Your task to perform on an android device: turn off priority inbox in the gmail app Image 0: 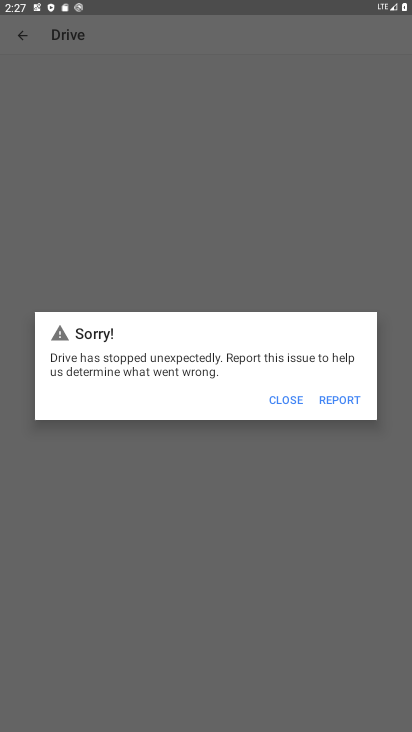
Step 0: press home button
Your task to perform on an android device: turn off priority inbox in the gmail app Image 1: 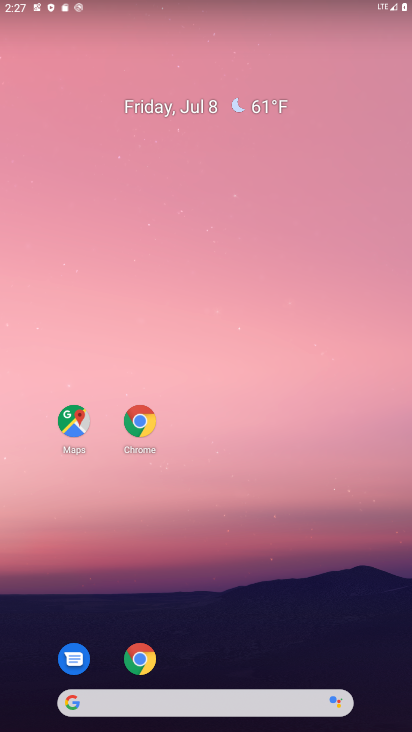
Step 1: drag from (221, 668) to (209, 3)
Your task to perform on an android device: turn off priority inbox in the gmail app Image 2: 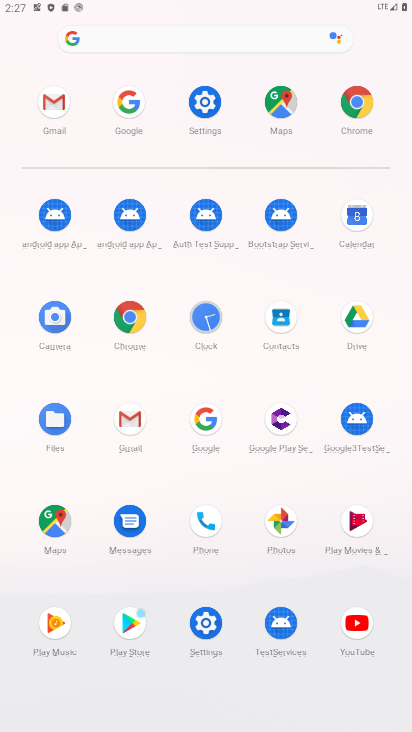
Step 2: click (132, 425)
Your task to perform on an android device: turn off priority inbox in the gmail app Image 3: 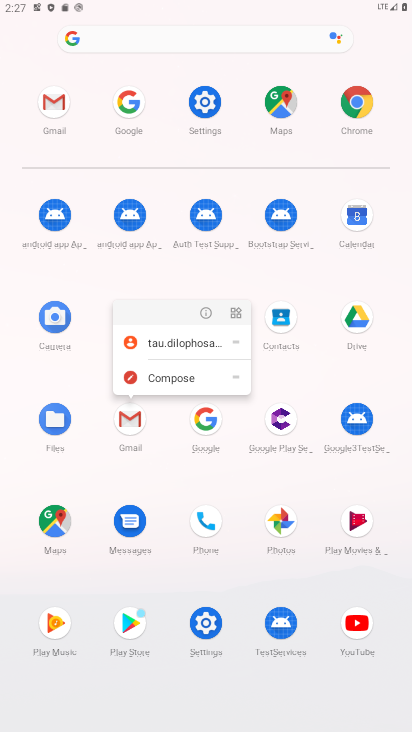
Step 3: click (132, 425)
Your task to perform on an android device: turn off priority inbox in the gmail app Image 4: 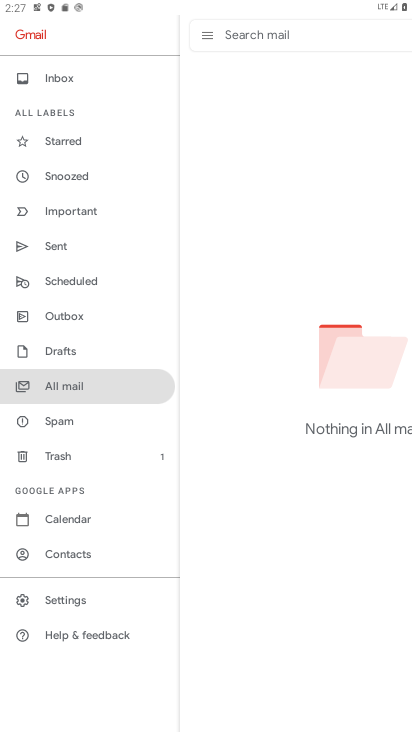
Step 4: click (80, 589)
Your task to perform on an android device: turn off priority inbox in the gmail app Image 5: 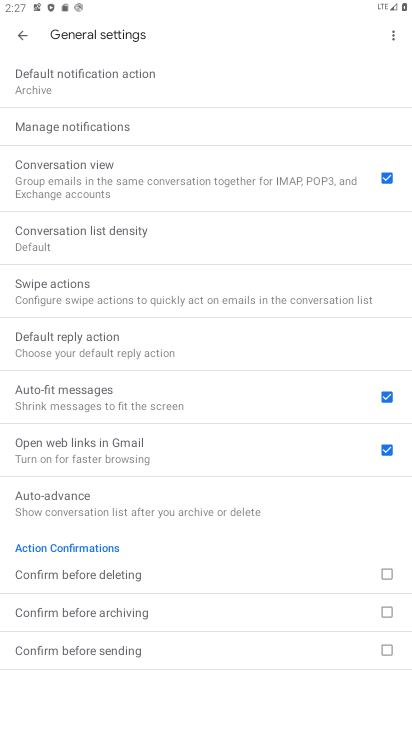
Step 5: click (17, 35)
Your task to perform on an android device: turn off priority inbox in the gmail app Image 6: 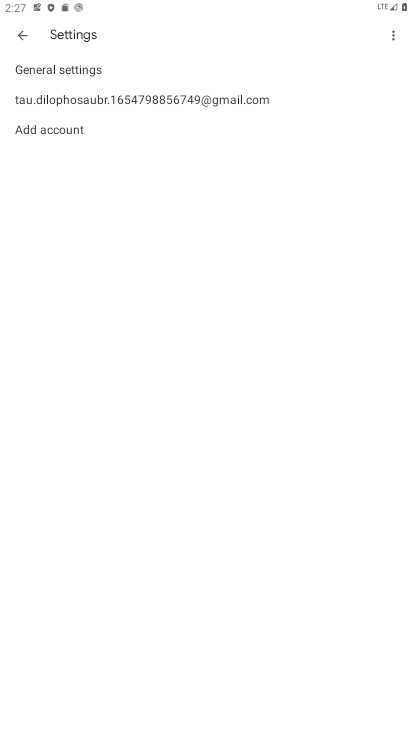
Step 6: click (35, 89)
Your task to perform on an android device: turn off priority inbox in the gmail app Image 7: 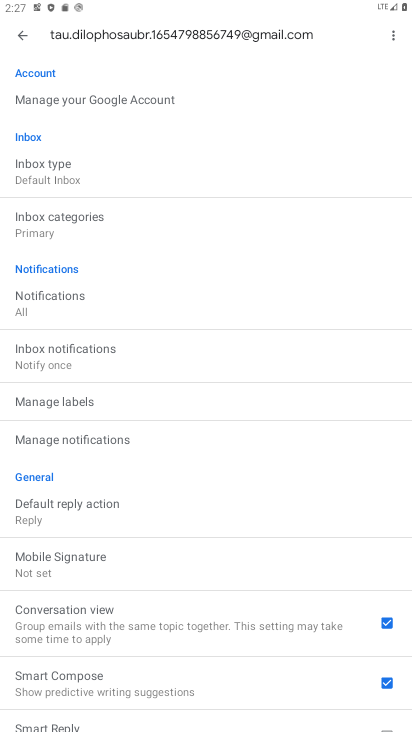
Step 7: click (42, 221)
Your task to perform on an android device: turn off priority inbox in the gmail app Image 8: 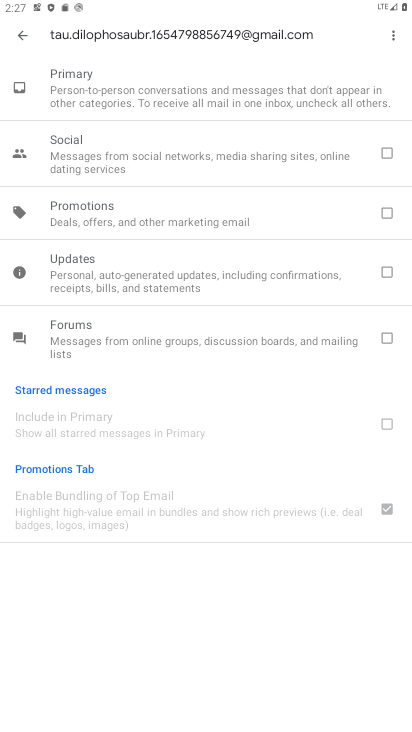
Step 8: click (26, 29)
Your task to perform on an android device: turn off priority inbox in the gmail app Image 9: 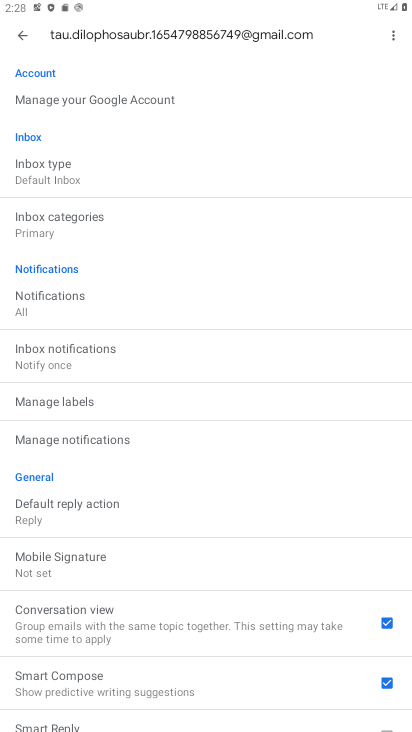
Step 9: click (46, 191)
Your task to perform on an android device: turn off priority inbox in the gmail app Image 10: 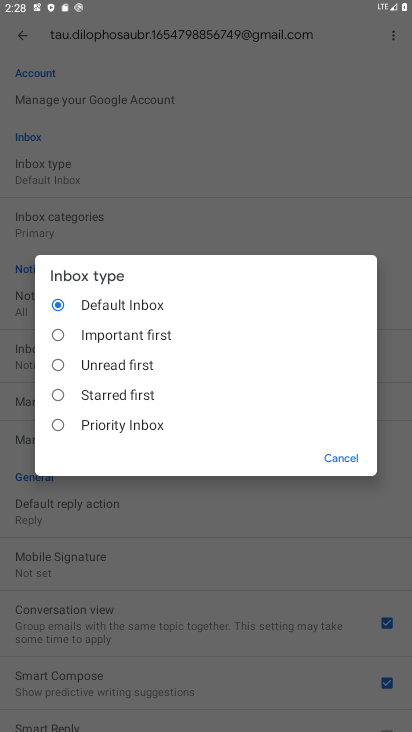
Step 10: task complete